Your task to perform on an android device: Go to Reddit.com Image 0: 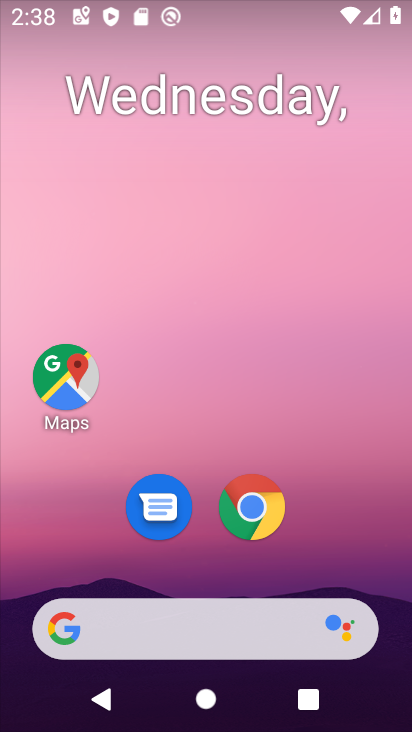
Step 0: click (258, 512)
Your task to perform on an android device: Go to Reddit.com Image 1: 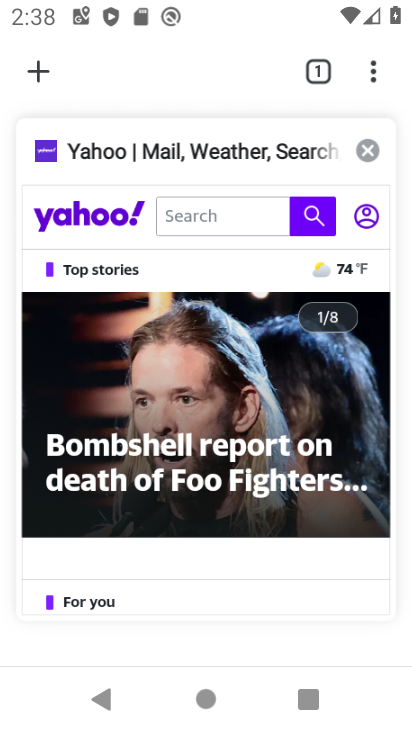
Step 1: click (40, 74)
Your task to perform on an android device: Go to Reddit.com Image 2: 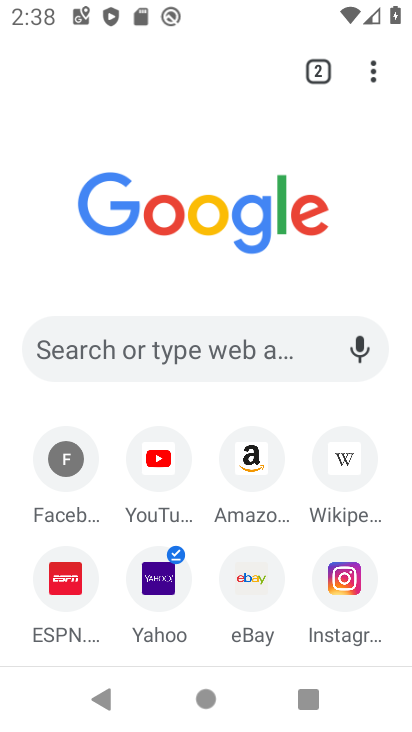
Step 2: click (164, 344)
Your task to perform on an android device: Go to Reddit.com Image 3: 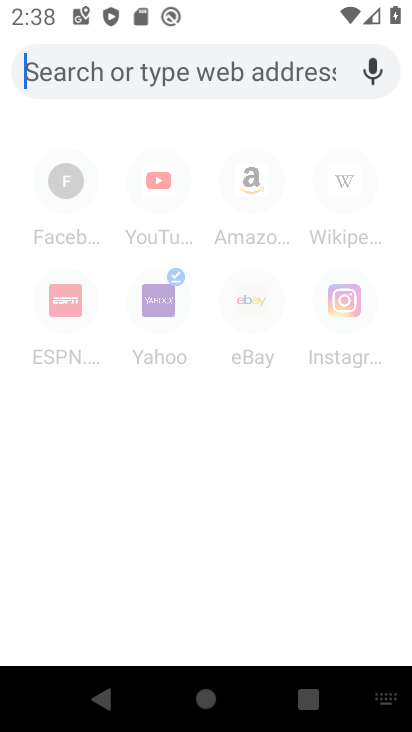
Step 3: type "Reddit.com"
Your task to perform on an android device: Go to Reddit.com Image 4: 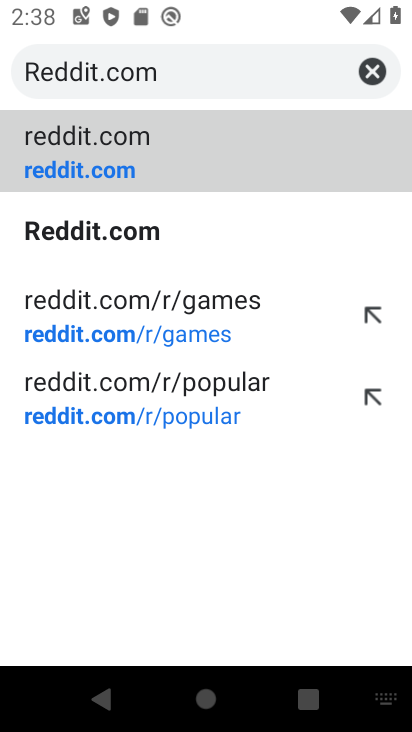
Step 4: click (198, 167)
Your task to perform on an android device: Go to Reddit.com Image 5: 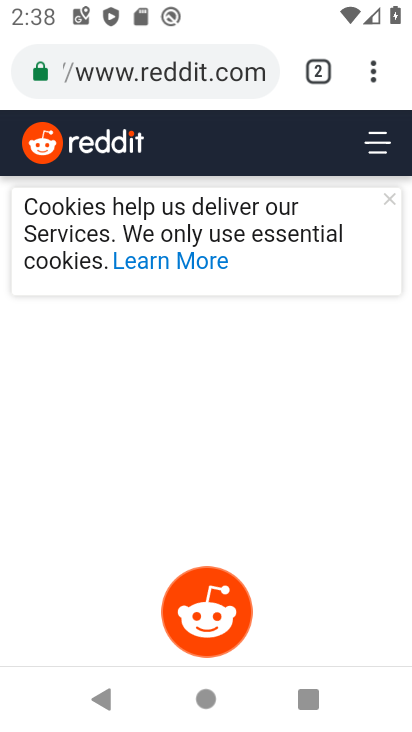
Step 5: task complete